Your task to perform on an android device: Go to settings Image 0: 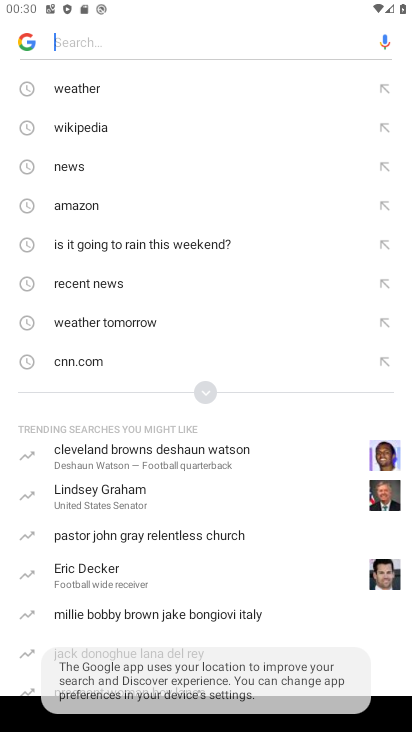
Step 0: press back button
Your task to perform on an android device: Go to settings Image 1: 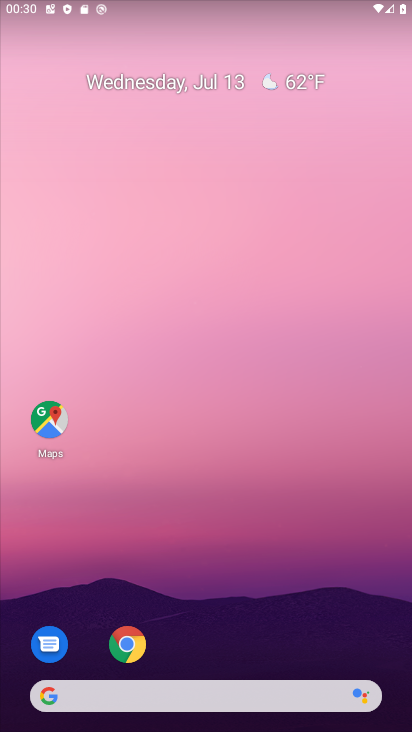
Step 1: drag from (220, 651) to (136, 87)
Your task to perform on an android device: Go to settings Image 2: 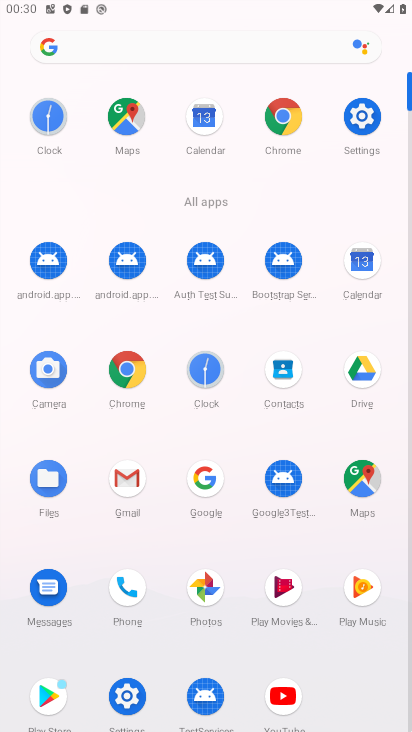
Step 2: click (357, 113)
Your task to perform on an android device: Go to settings Image 3: 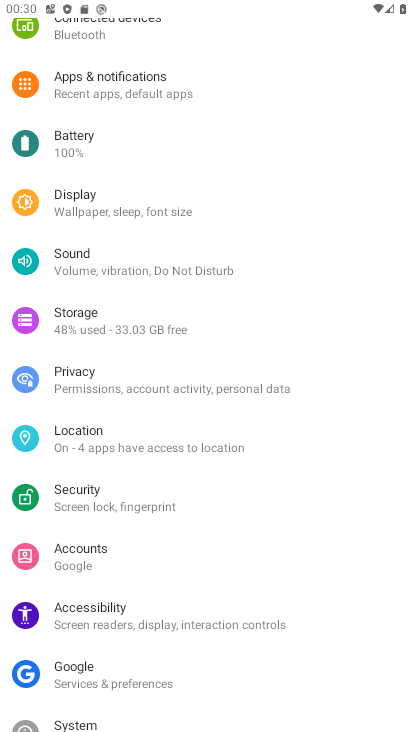
Step 3: task complete